Your task to perform on an android device: turn on the 12-hour format for clock Image 0: 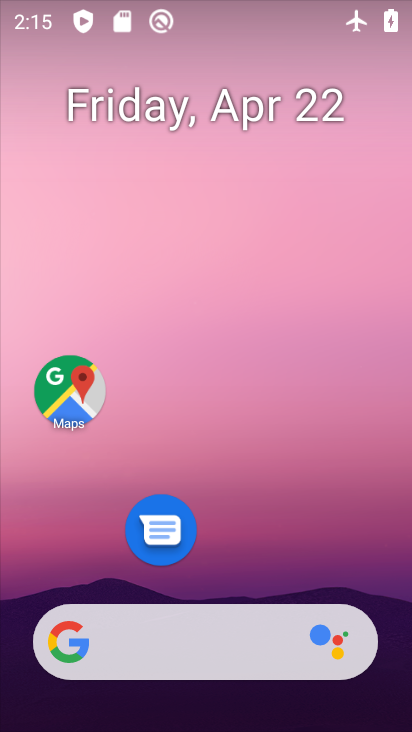
Step 0: drag from (258, 587) to (177, 52)
Your task to perform on an android device: turn on the 12-hour format for clock Image 1: 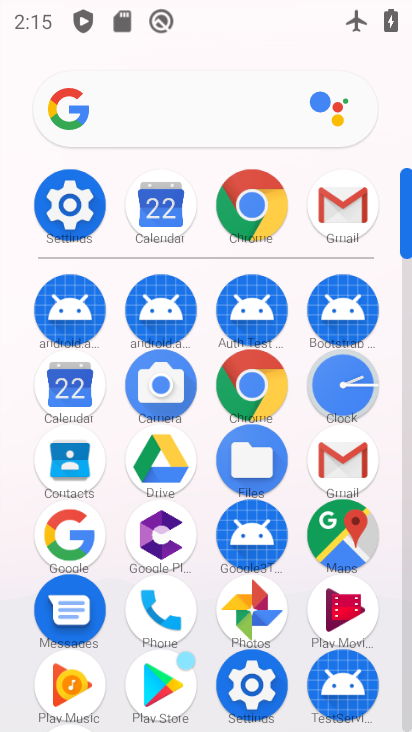
Step 1: click (336, 393)
Your task to perform on an android device: turn on the 12-hour format for clock Image 2: 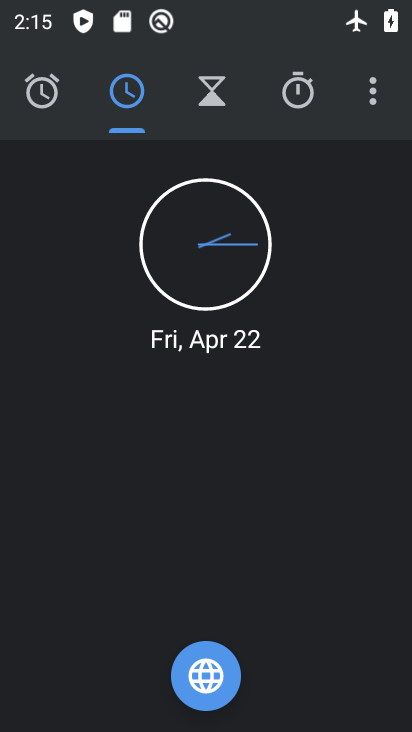
Step 2: click (366, 93)
Your task to perform on an android device: turn on the 12-hour format for clock Image 3: 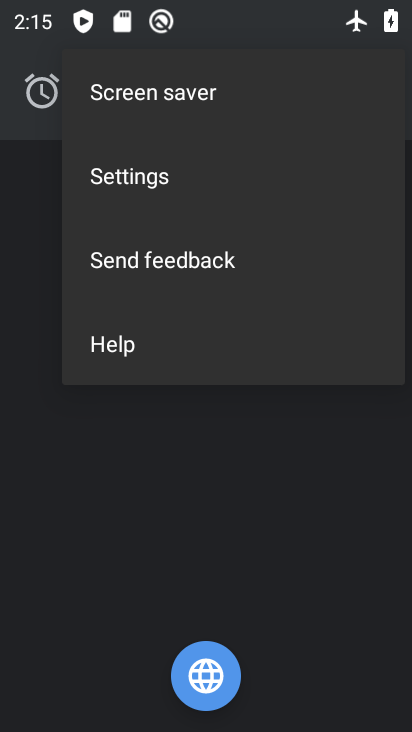
Step 3: click (166, 178)
Your task to perform on an android device: turn on the 12-hour format for clock Image 4: 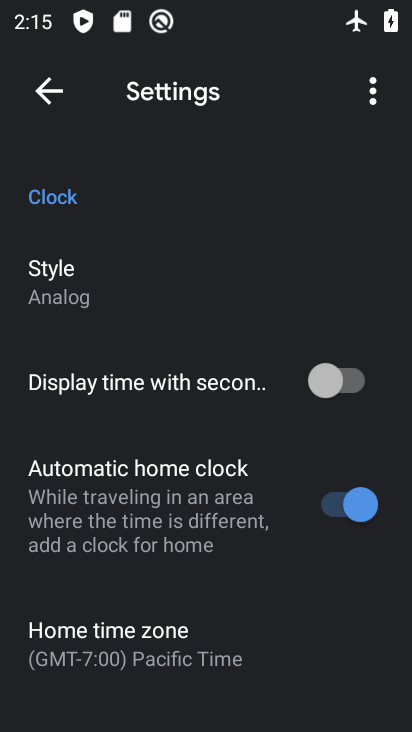
Step 4: drag from (269, 556) to (234, 189)
Your task to perform on an android device: turn on the 12-hour format for clock Image 5: 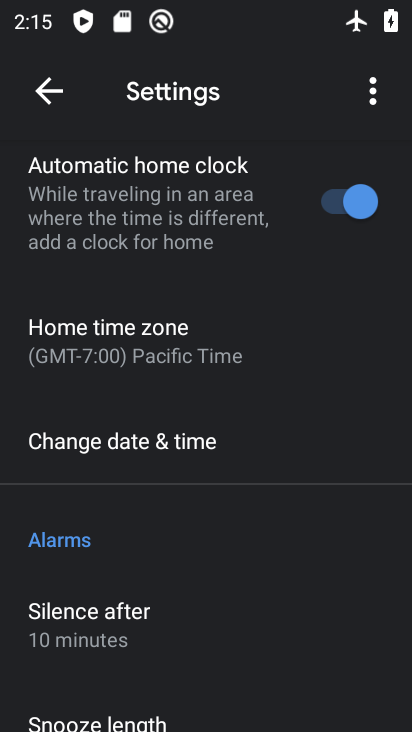
Step 5: click (148, 438)
Your task to perform on an android device: turn on the 12-hour format for clock Image 6: 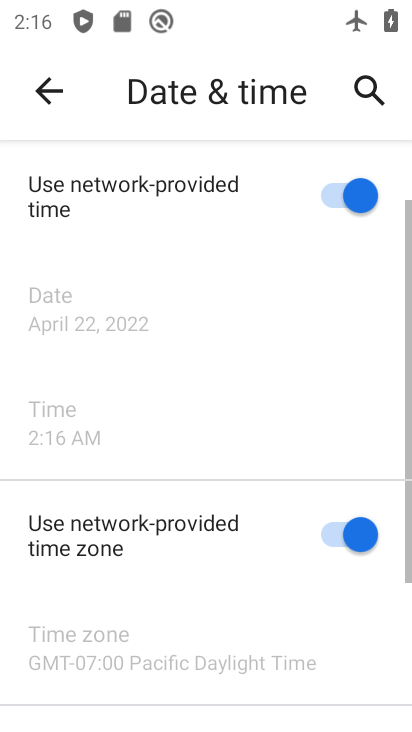
Step 6: task complete